Your task to perform on an android device: Go to accessibility settings Image 0: 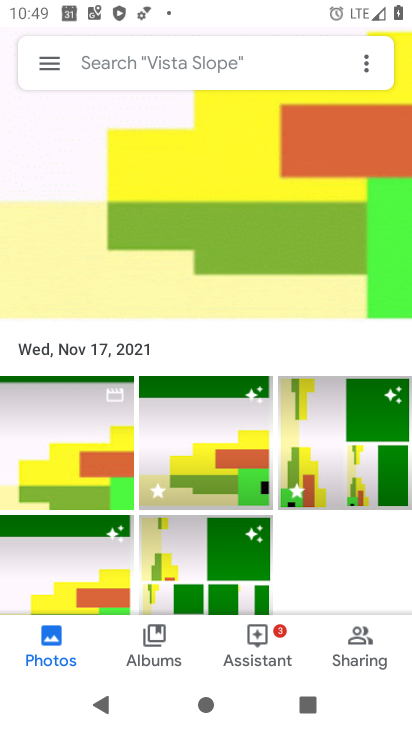
Step 0: press home button
Your task to perform on an android device: Go to accessibility settings Image 1: 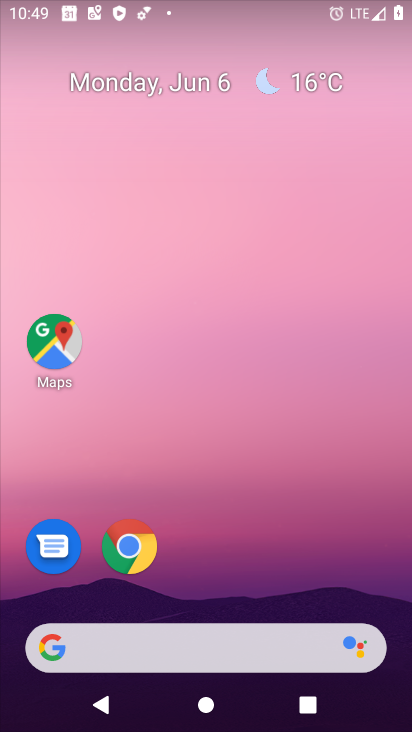
Step 1: drag from (228, 564) to (311, 69)
Your task to perform on an android device: Go to accessibility settings Image 2: 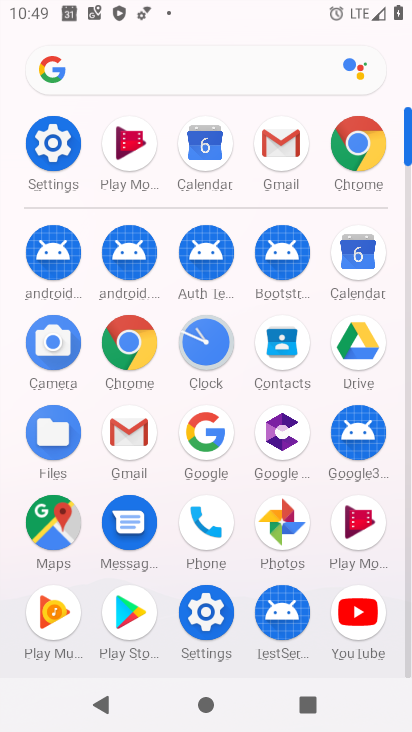
Step 2: click (56, 144)
Your task to perform on an android device: Go to accessibility settings Image 3: 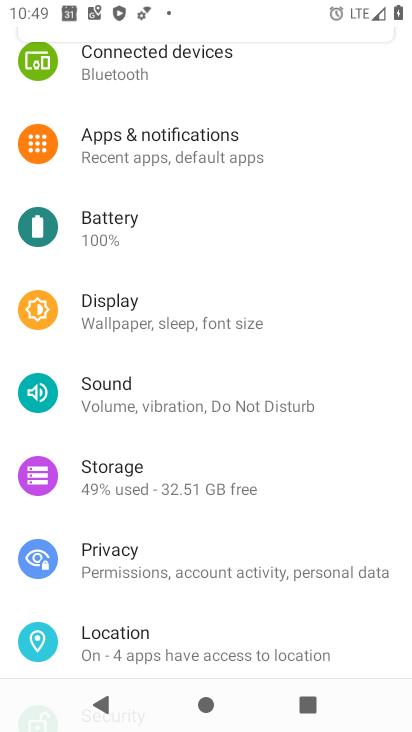
Step 3: drag from (148, 613) to (242, 117)
Your task to perform on an android device: Go to accessibility settings Image 4: 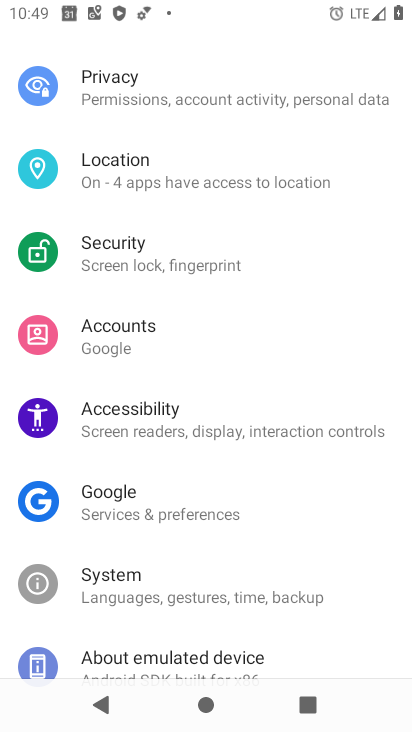
Step 4: click (187, 427)
Your task to perform on an android device: Go to accessibility settings Image 5: 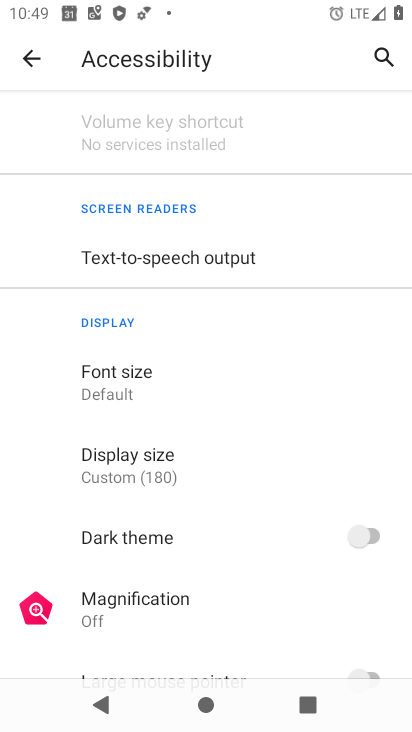
Step 5: task complete